Your task to perform on an android device: change the clock display to digital Image 0: 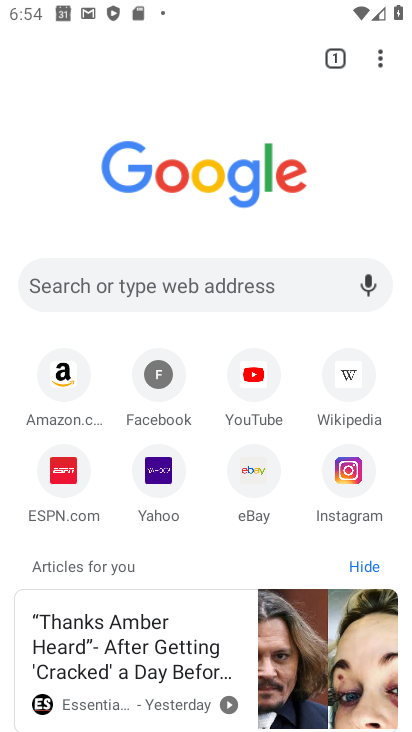
Step 0: press home button
Your task to perform on an android device: change the clock display to digital Image 1: 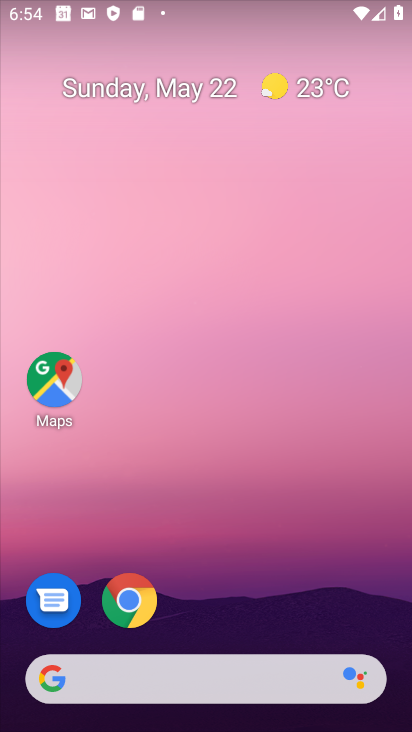
Step 1: drag from (353, 622) to (263, 104)
Your task to perform on an android device: change the clock display to digital Image 2: 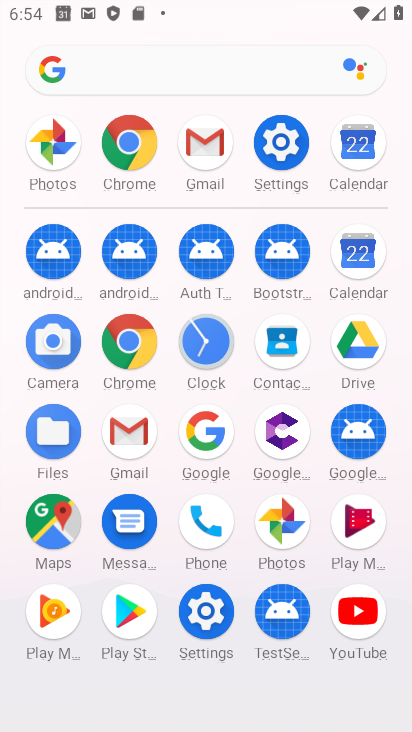
Step 2: click (205, 364)
Your task to perform on an android device: change the clock display to digital Image 3: 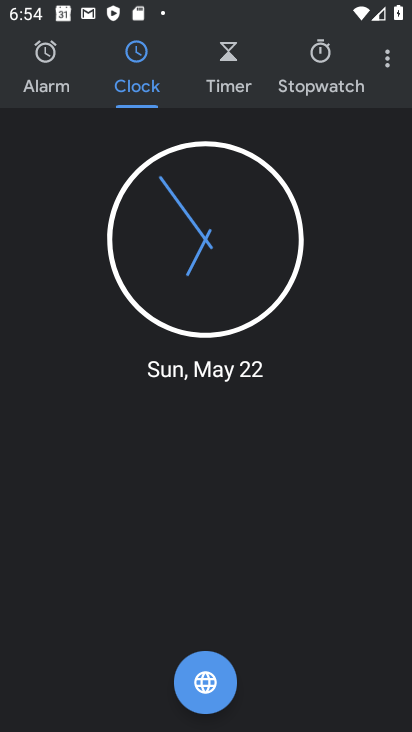
Step 3: click (379, 44)
Your task to perform on an android device: change the clock display to digital Image 4: 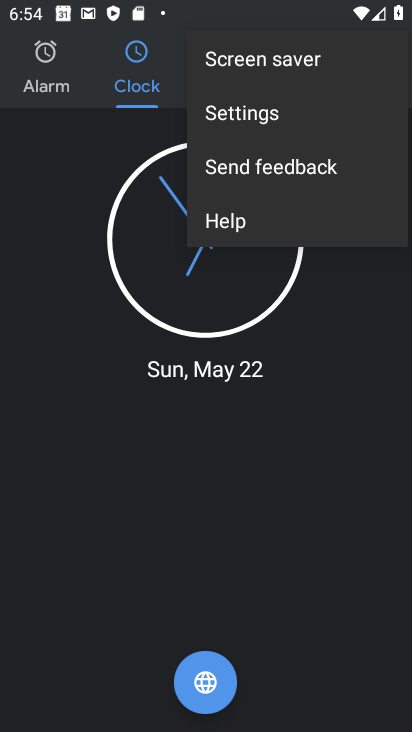
Step 4: click (287, 114)
Your task to perform on an android device: change the clock display to digital Image 5: 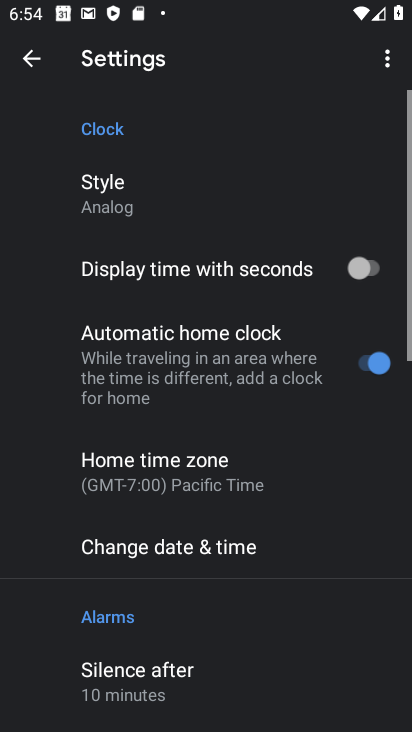
Step 5: click (153, 191)
Your task to perform on an android device: change the clock display to digital Image 6: 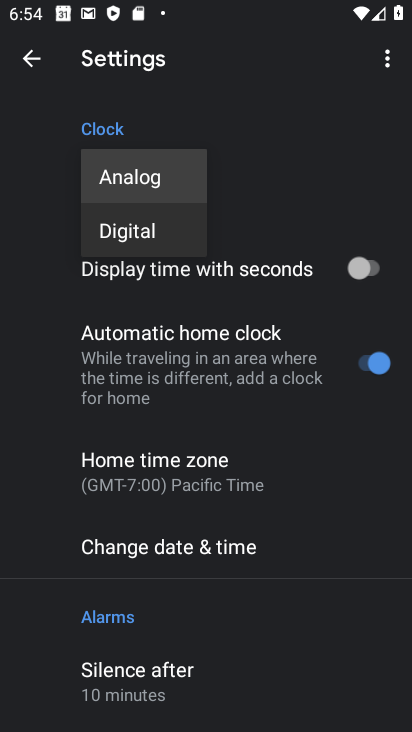
Step 6: click (156, 225)
Your task to perform on an android device: change the clock display to digital Image 7: 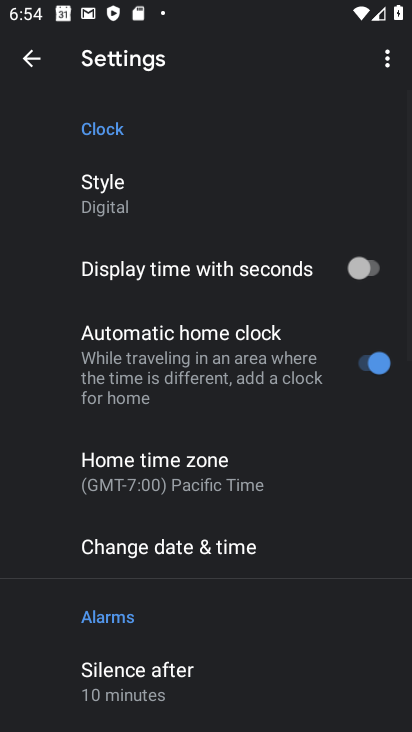
Step 7: task complete